Your task to perform on an android device: Go to eBay Image 0: 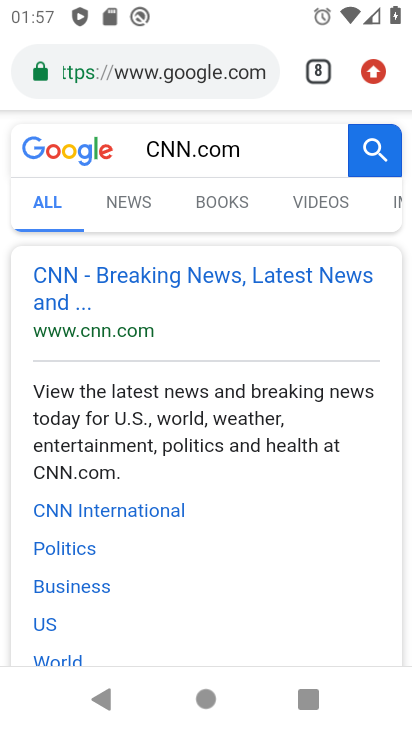
Step 0: press home button
Your task to perform on an android device: Go to eBay Image 1: 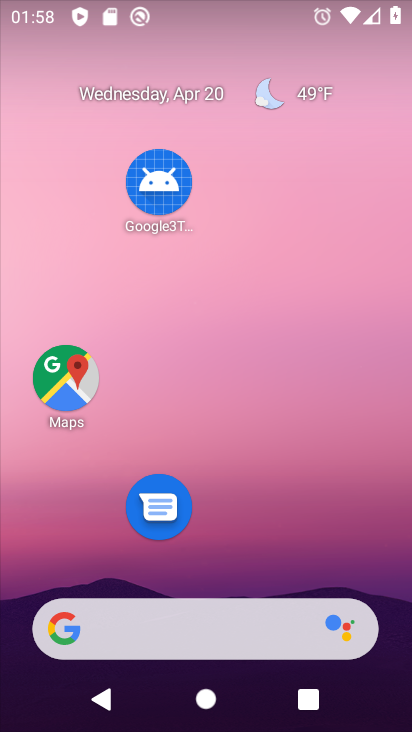
Step 1: click (209, 620)
Your task to perform on an android device: Go to eBay Image 2: 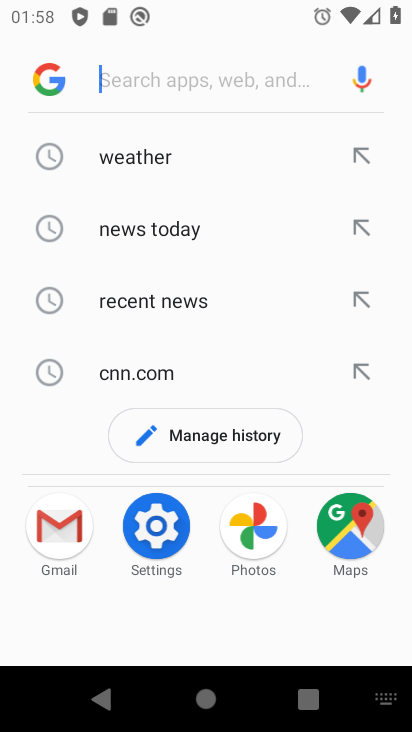
Step 2: click (127, 78)
Your task to perform on an android device: Go to eBay Image 3: 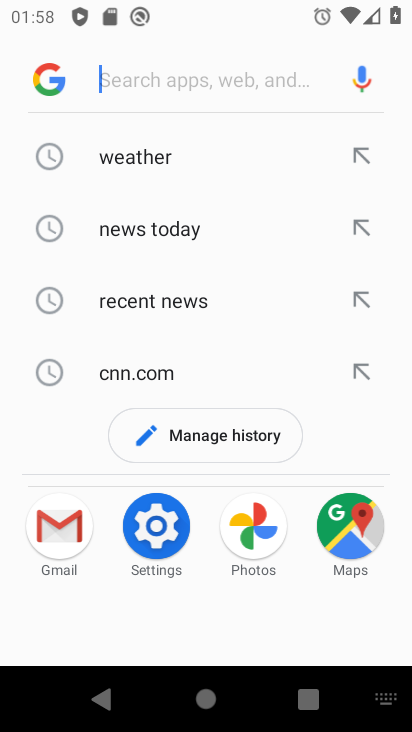
Step 3: type "eBay"
Your task to perform on an android device: Go to eBay Image 4: 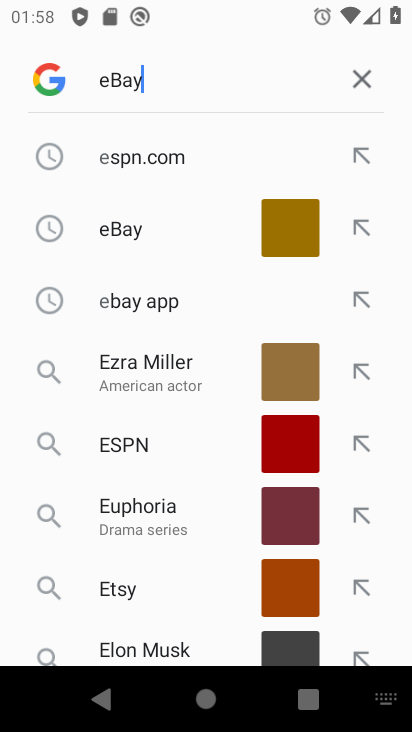
Step 4: type ""
Your task to perform on an android device: Go to eBay Image 5: 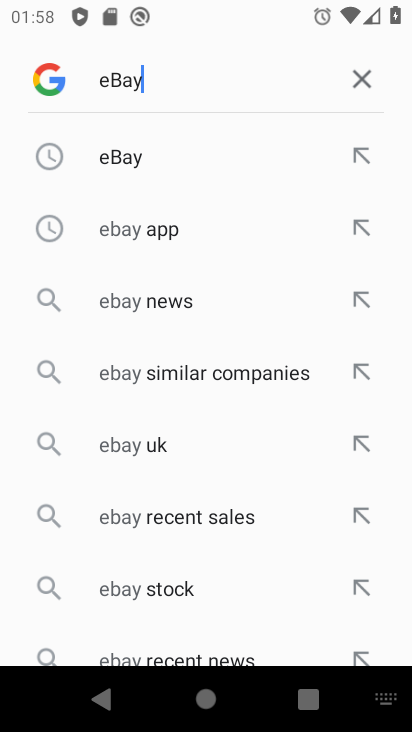
Step 5: click (136, 160)
Your task to perform on an android device: Go to eBay Image 6: 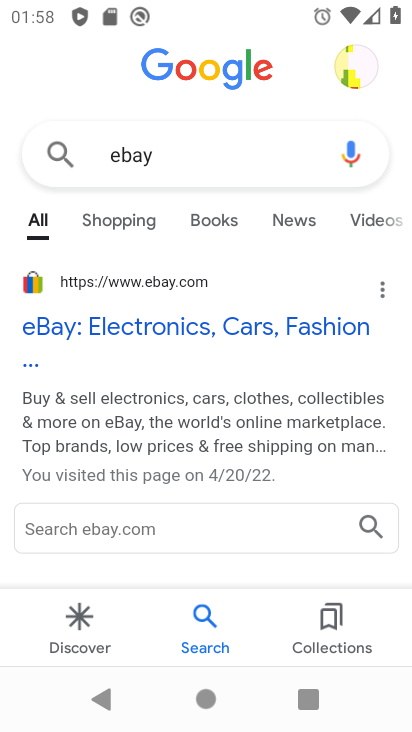
Step 6: task complete